Your task to perform on an android device: Search for the new steph curry shoes on Amazon. Image 0: 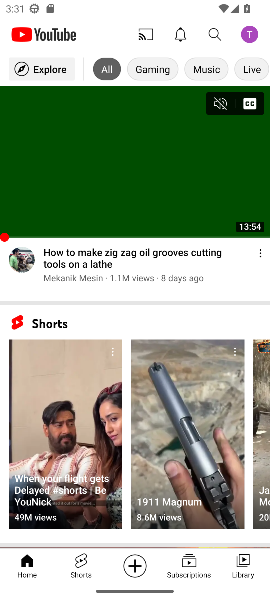
Step 0: press home button
Your task to perform on an android device: Search for the new steph curry shoes on Amazon. Image 1: 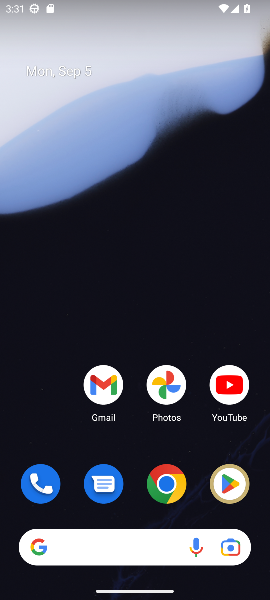
Step 1: click (163, 477)
Your task to perform on an android device: Search for the new steph curry shoes on Amazon. Image 2: 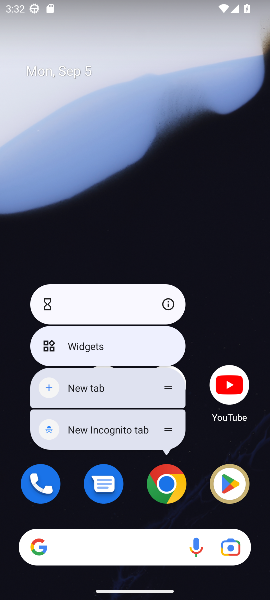
Step 2: click (173, 486)
Your task to perform on an android device: Search for the new steph curry shoes on Amazon. Image 3: 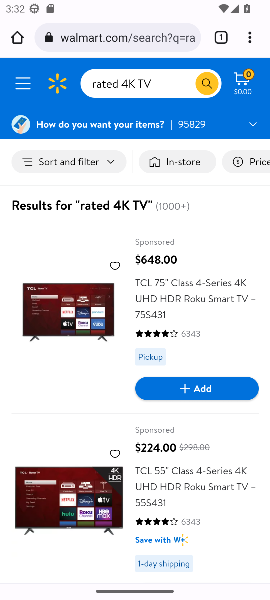
Step 3: click (98, 41)
Your task to perform on an android device: Search for the new steph curry shoes on Amazon. Image 4: 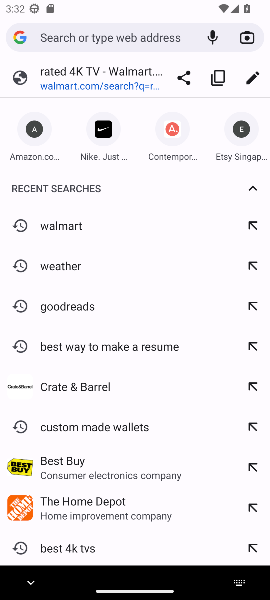
Step 4: type "Amazon"
Your task to perform on an android device: Search for the new steph curry shoes on Amazon. Image 5: 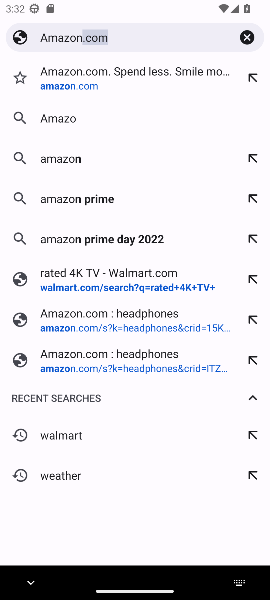
Step 5: press enter
Your task to perform on an android device: Search for the new steph curry shoes on Amazon. Image 6: 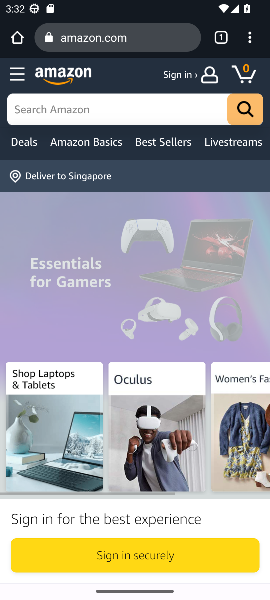
Step 6: click (144, 107)
Your task to perform on an android device: Search for the new steph curry shoes on Amazon. Image 7: 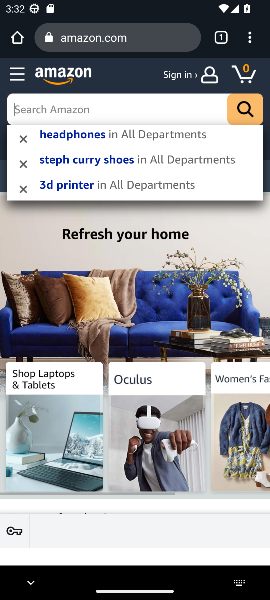
Step 7: press enter
Your task to perform on an android device: Search for the new steph curry shoes on Amazon. Image 8: 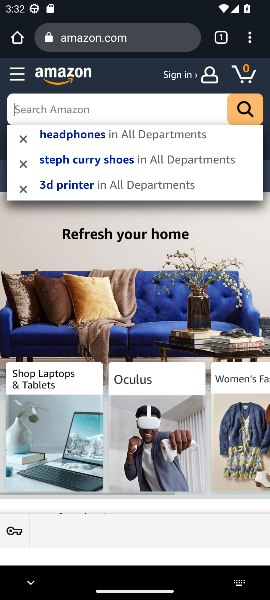
Step 8: type "steph curry shoes"
Your task to perform on an android device: Search for the new steph curry shoes on Amazon. Image 9: 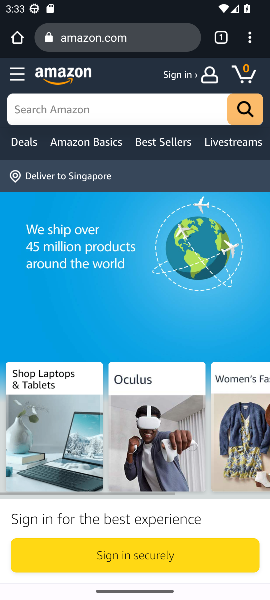
Step 9: click (129, 98)
Your task to perform on an android device: Search for the new steph curry shoes on Amazon. Image 10: 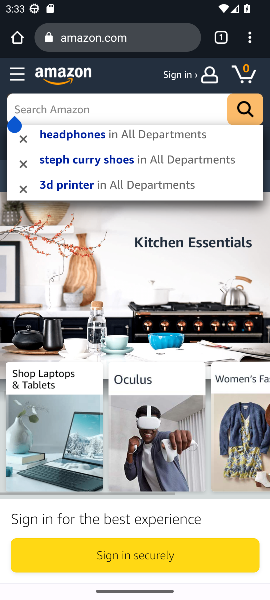
Step 10: type "steph curry shoes"
Your task to perform on an android device: Search for the new steph curry shoes on Amazon. Image 11: 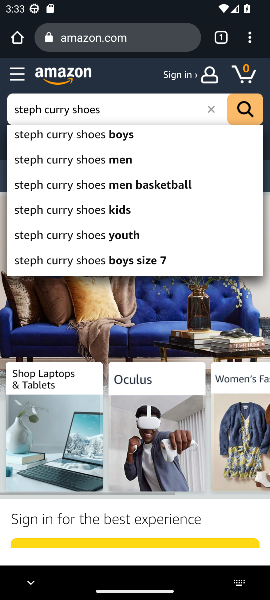
Step 11: click (242, 107)
Your task to perform on an android device: Search for the new steph curry shoes on Amazon. Image 12: 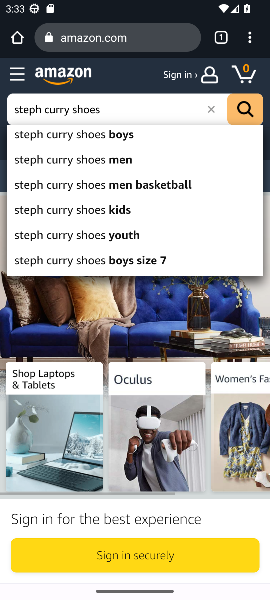
Step 12: click (242, 107)
Your task to perform on an android device: Search for the new steph curry shoes on Amazon. Image 13: 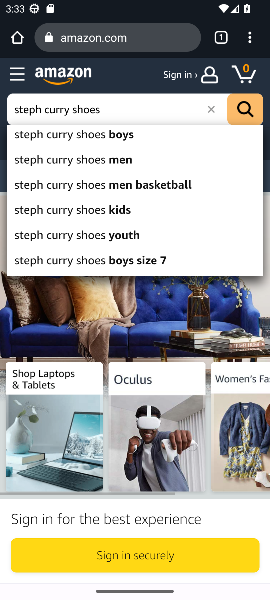
Step 13: click (242, 108)
Your task to perform on an android device: Search for the new steph curry shoes on Amazon. Image 14: 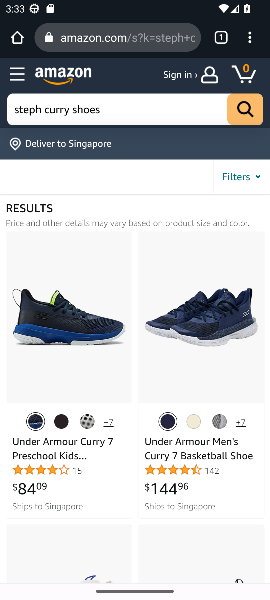
Step 14: task complete